Your task to perform on an android device: See recent photos Image 0: 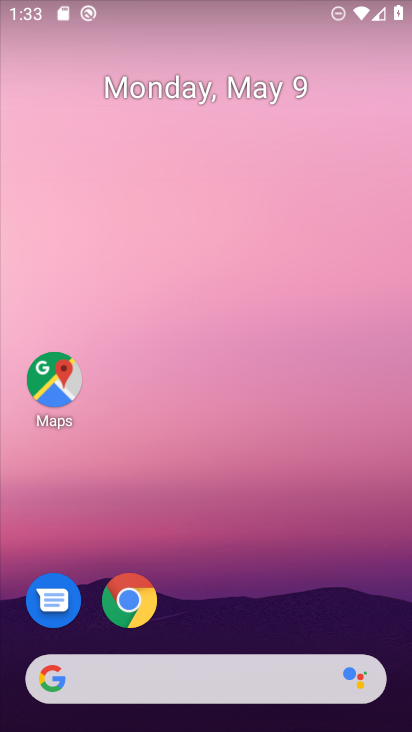
Step 0: drag from (166, 676) to (297, 21)
Your task to perform on an android device: See recent photos Image 1: 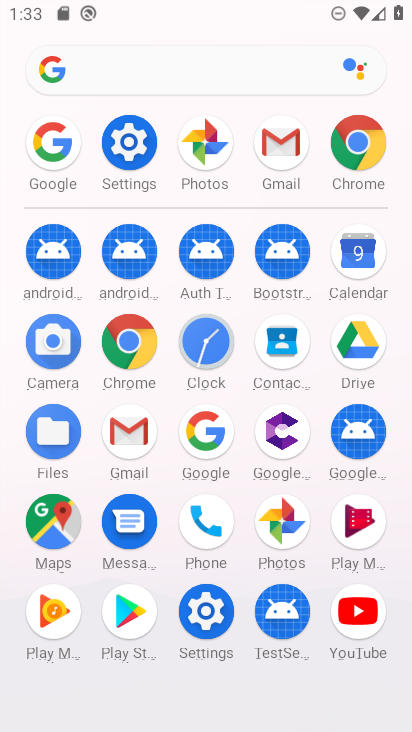
Step 1: click (282, 520)
Your task to perform on an android device: See recent photos Image 2: 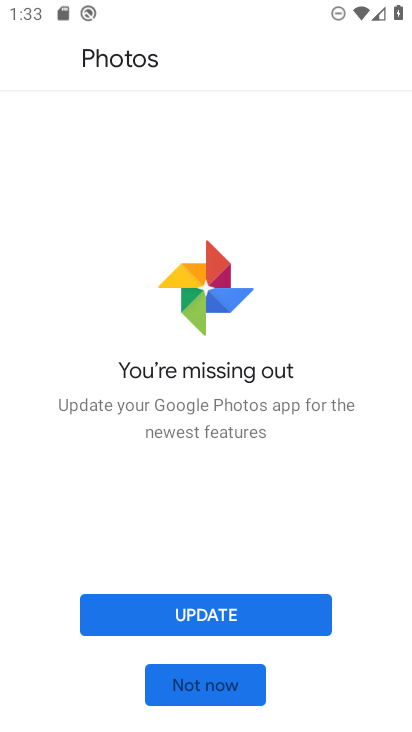
Step 2: click (249, 615)
Your task to perform on an android device: See recent photos Image 3: 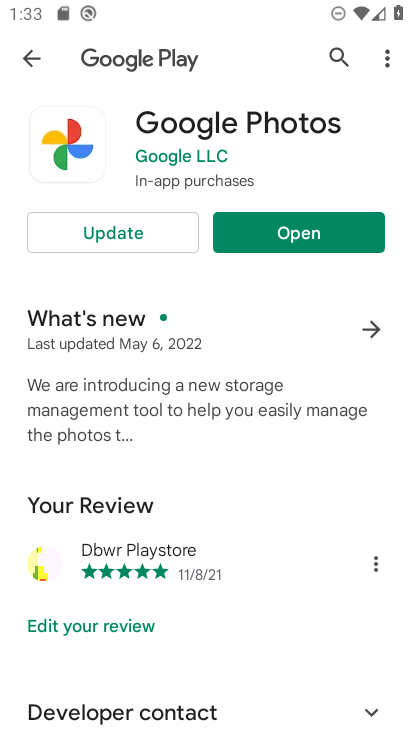
Step 3: click (307, 228)
Your task to perform on an android device: See recent photos Image 4: 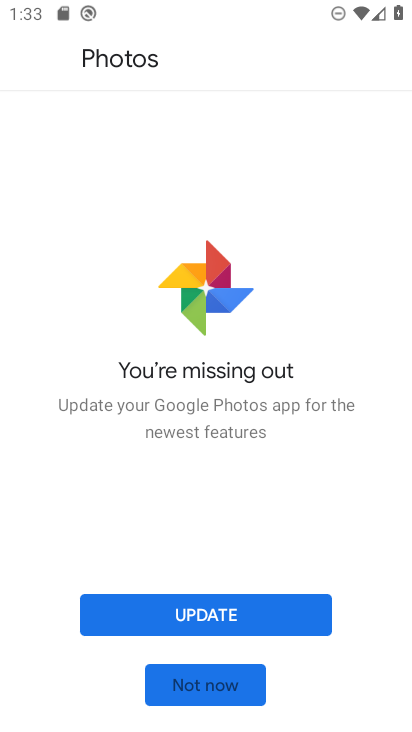
Step 4: click (217, 617)
Your task to perform on an android device: See recent photos Image 5: 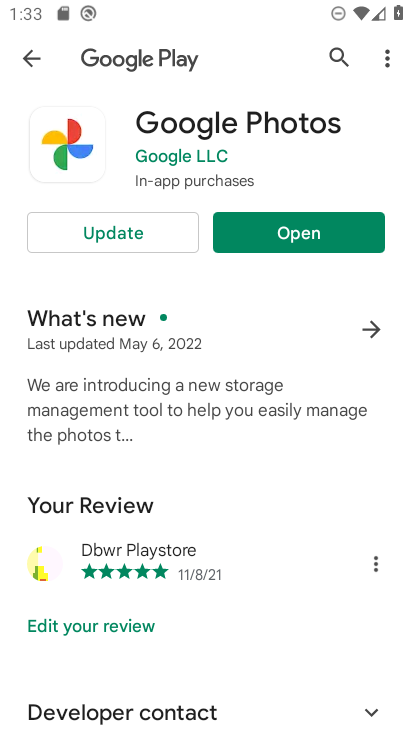
Step 5: click (320, 236)
Your task to perform on an android device: See recent photos Image 6: 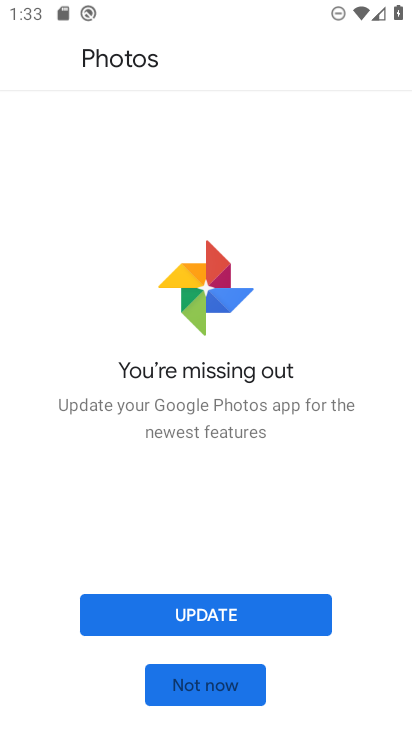
Step 6: click (206, 690)
Your task to perform on an android device: See recent photos Image 7: 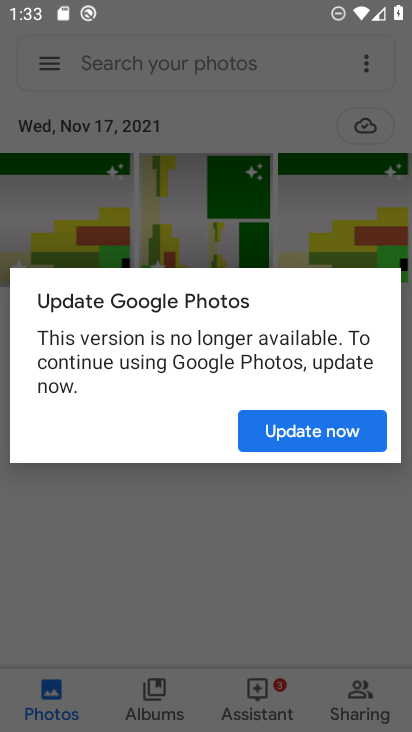
Step 7: click (336, 420)
Your task to perform on an android device: See recent photos Image 8: 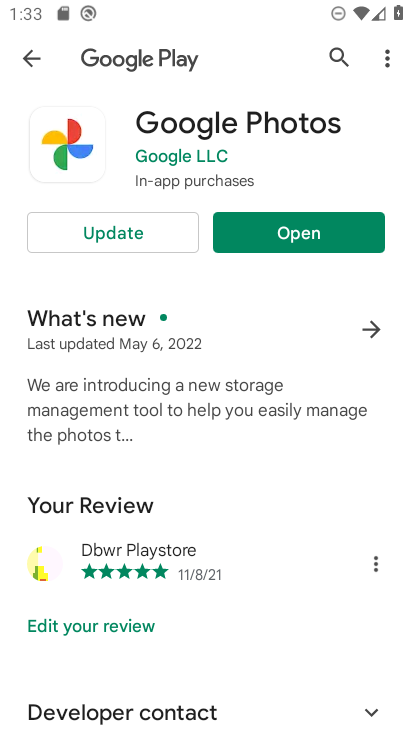
Step 8: click (138, 231)
Your task to perform on an android device: See recent photos Image 9: 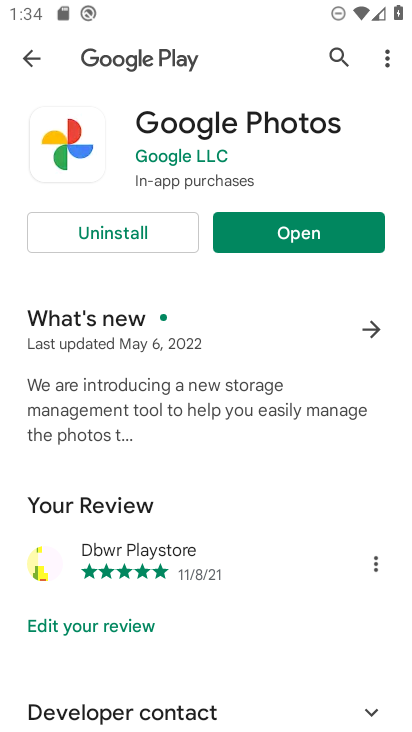
Step 9: click (270, 238)
Your task to perform on an android device: See recent photos Image 10: 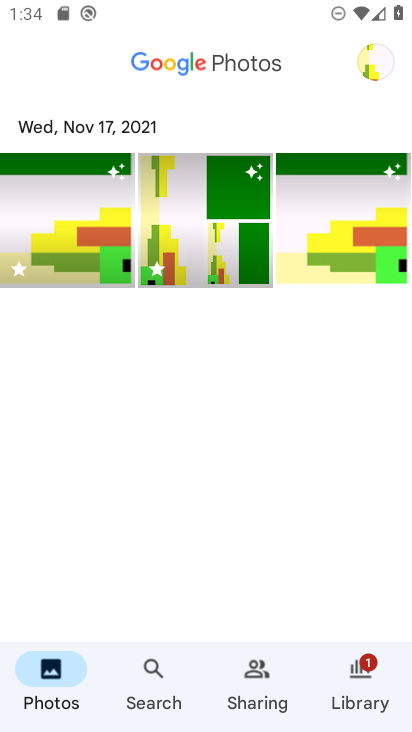
Step 10: task complete